Your task to perform on an android device: toggle javascript in the chrome app Image 0: 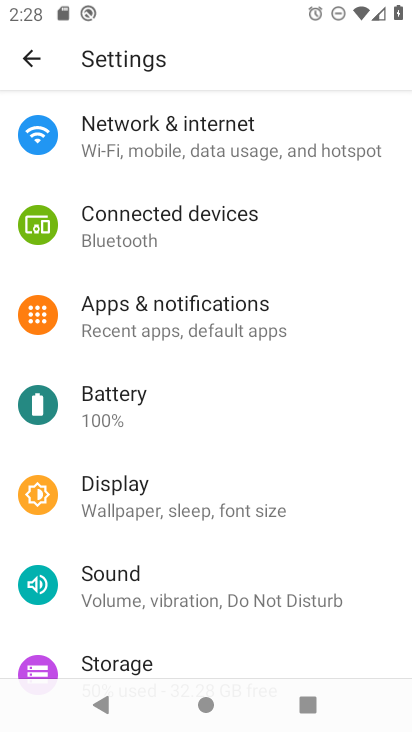
Step 0: press home button
Your task to perform on an android device: toggle javascript in the chrome app Image 1: 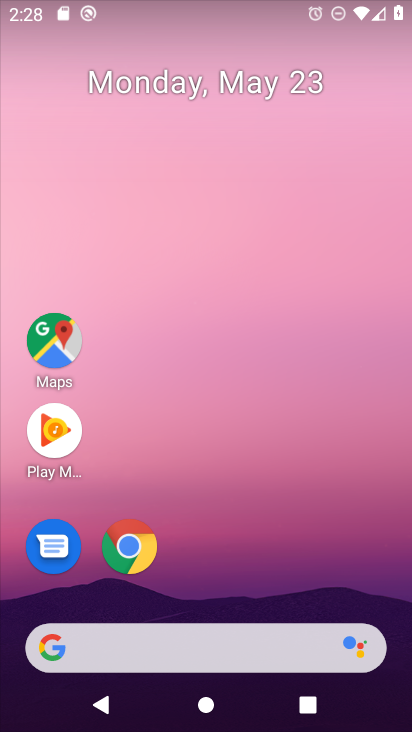
Step 1: drag from (292, 594) to (313, 290)
Your task to perform on an android device: toggle javascript in the chrome app Image 2: 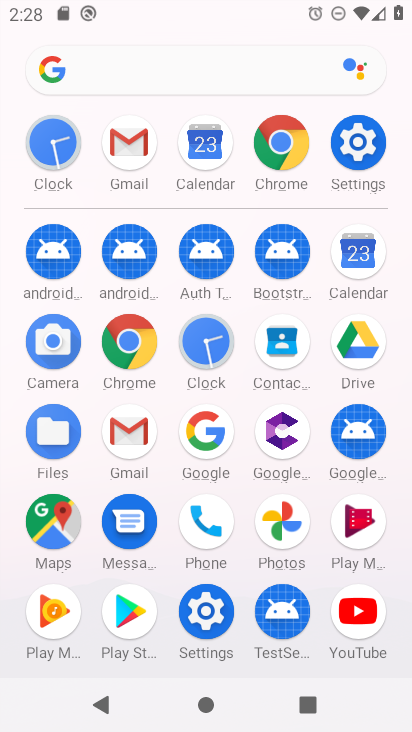
Step 2: click (272, 165)
Your task to perform on an android device: toggle javascript in the chrome app Image 3: 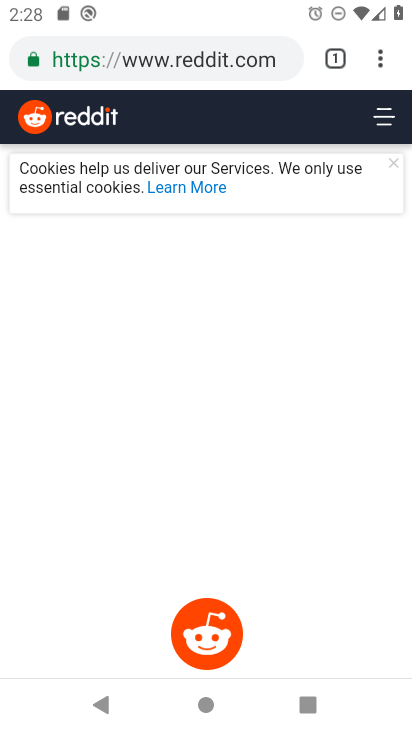
Step 3: click (382, 70)
Your task to perform on an android device: toggle javascript in the chrome app Image 4: 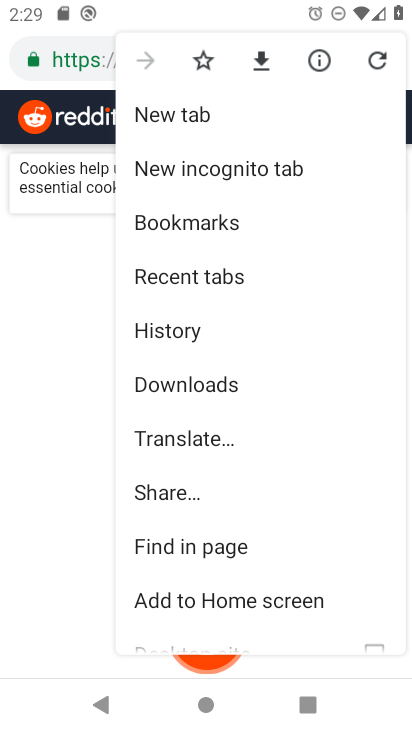
Step 4: drag from (184, 586) to (242, 260)
Your task to perform on an android device: toggle javascript in the chrome app Image 5: 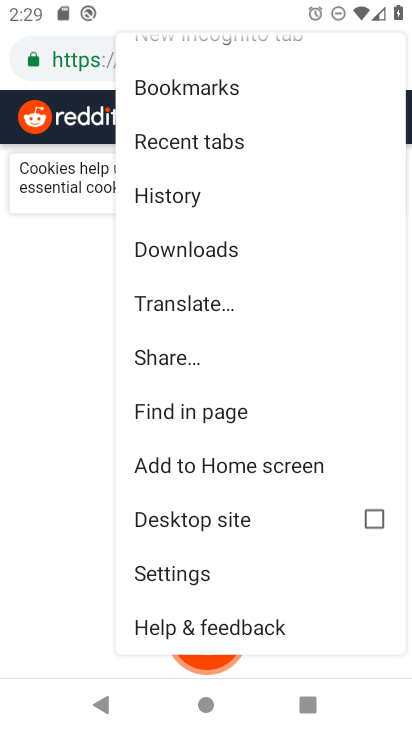
Step 5: click (190, 568)
Your task to perform on an android device: toggle javascript in the chrome app Image 6: 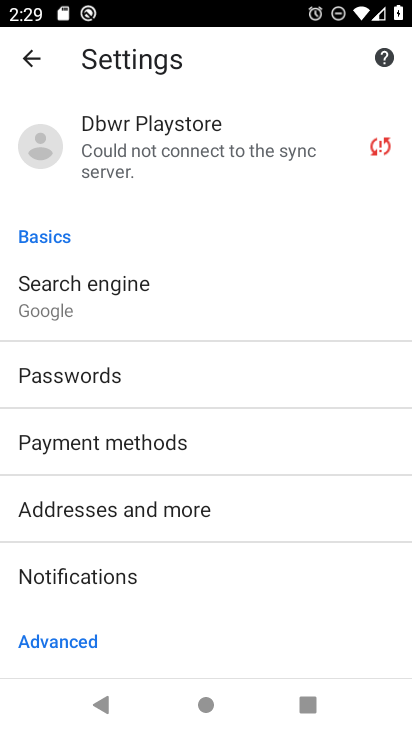
Step 6: drag from (174, 625) to (237, 354)
Your task to perform on an android device: toggle javascript in the chrome app Image 7: 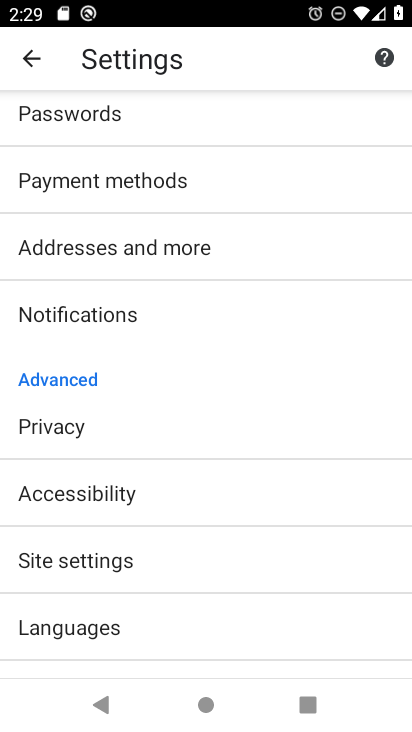
Step 7: click (95, 564)
Your task to perform on an android device: toggle javascript in the chrome app Image 8: 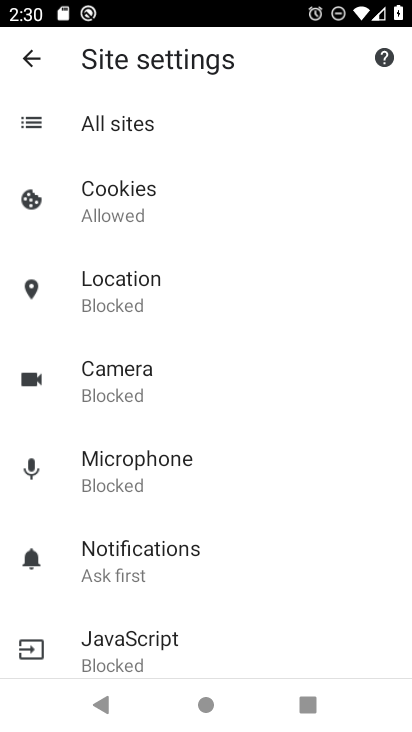
Step 8: click (167, 638)
Your task to perform on an android device: toggle javascript in the chrome app Image 9: 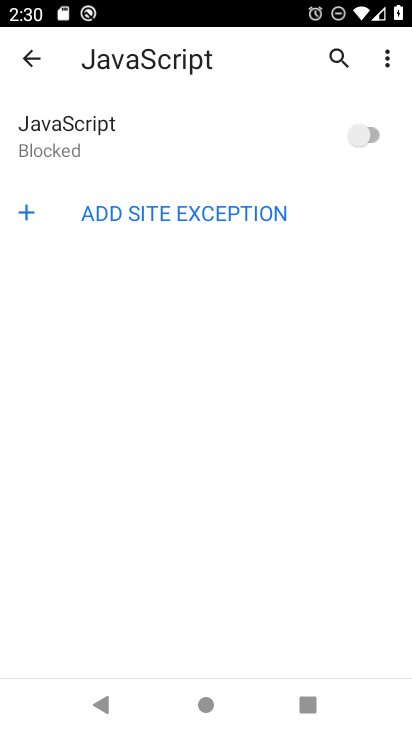
Step 9: click (378, 146)
Your task to perform on an android device: toggle javascript in the chrome app Image 10: 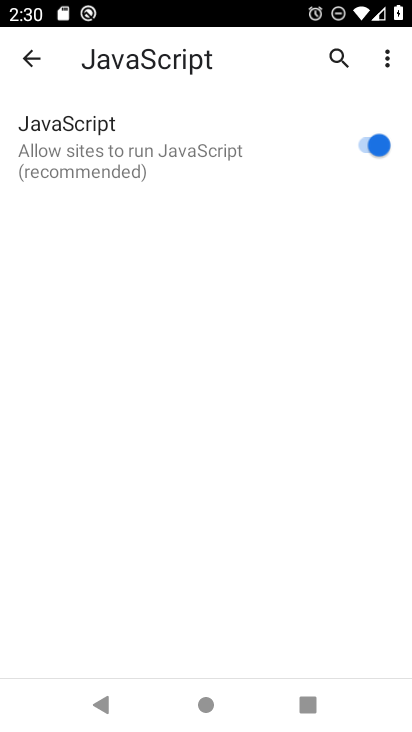
Step 10: task complete